Your task to perform on an android device: Open settings Image 0: 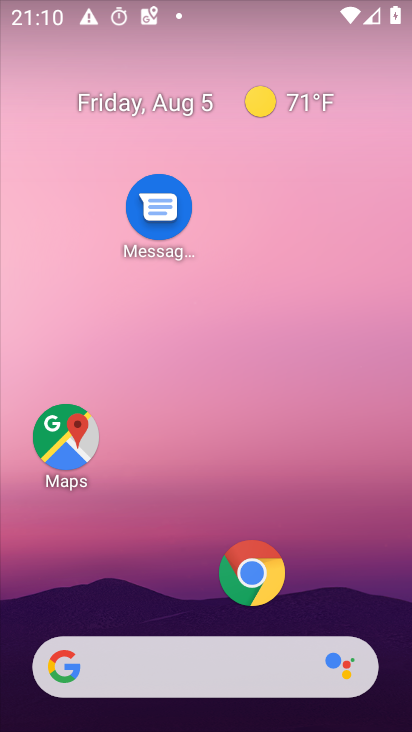
Step 0: drag from (316, 609) to (339, 1)
Your task to perform on an android device: Open settings Image 1: 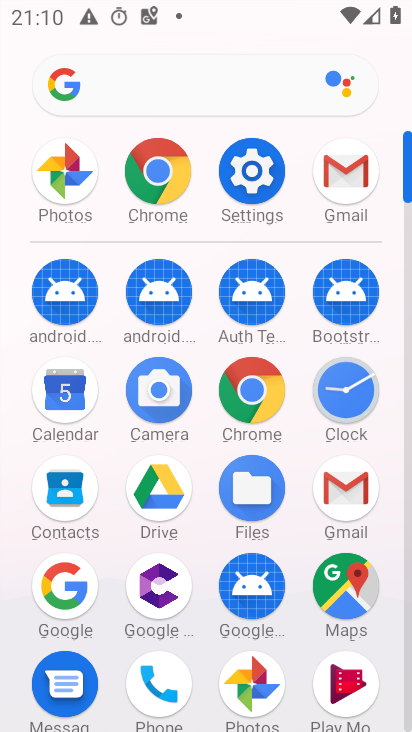
Step 1: click (247, 165)
Your task to perform on an android device: Open settings Image 2: 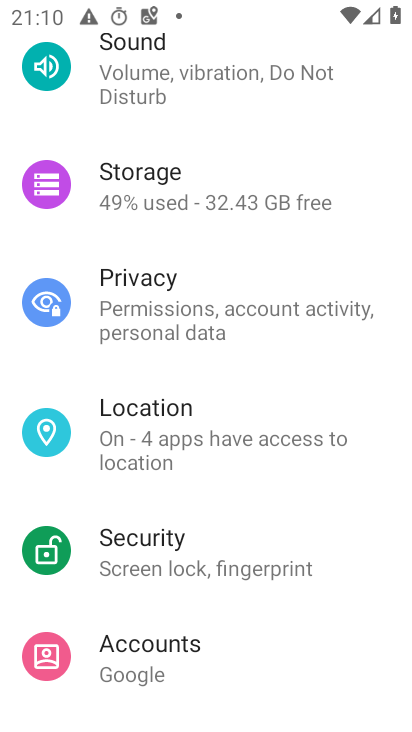
Step 2: task complete